Your task to perform on an android device: Open maps Image 0: 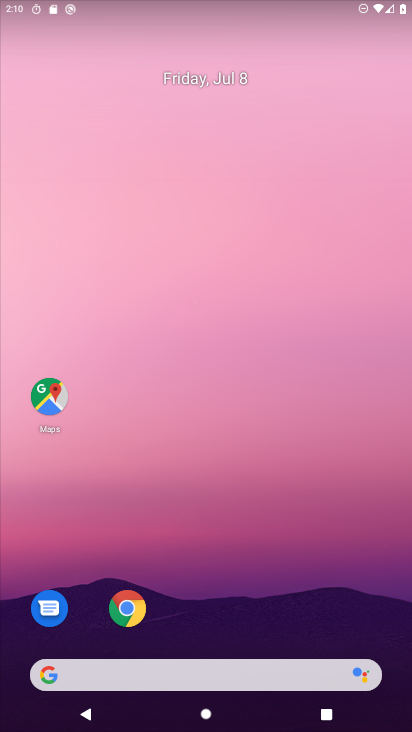
Step 0: drag from (252, 711) to (218, 166)
Your task to perform on an android device: Open maps Image 1: 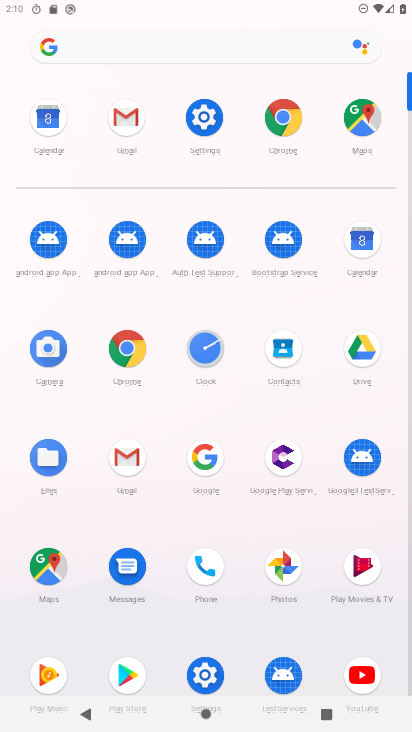
Step 1: click (358, 119)
Your task to perform on an android device: Open maps Image 2: 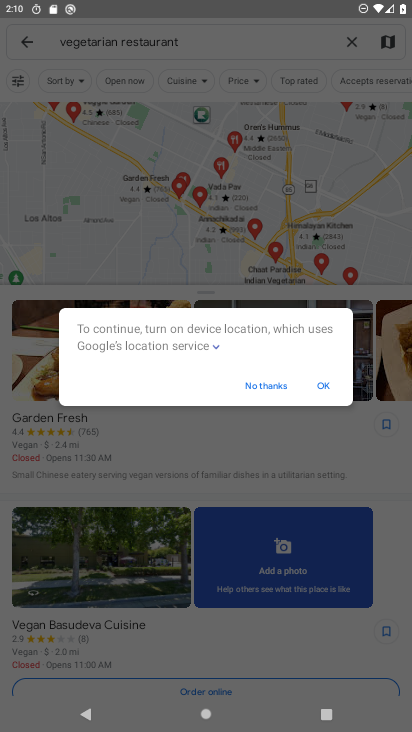
Step 2: click (326, 388)
Your task to perform on an android device: Open maps Image 3: 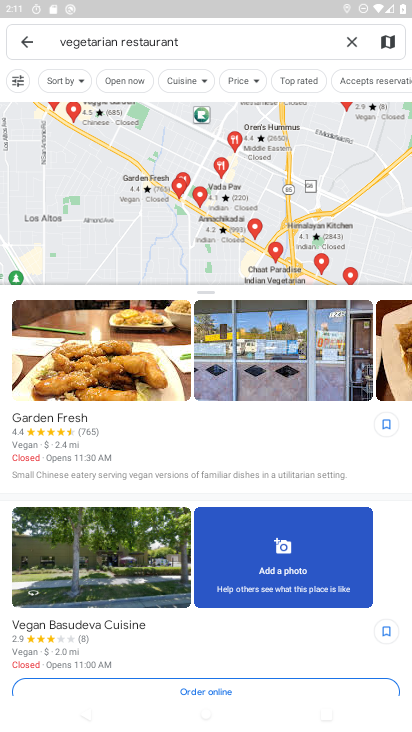
Step 3: task complete